Your task to perform on an android device: Clear all items from cart on amazon. Image 0: 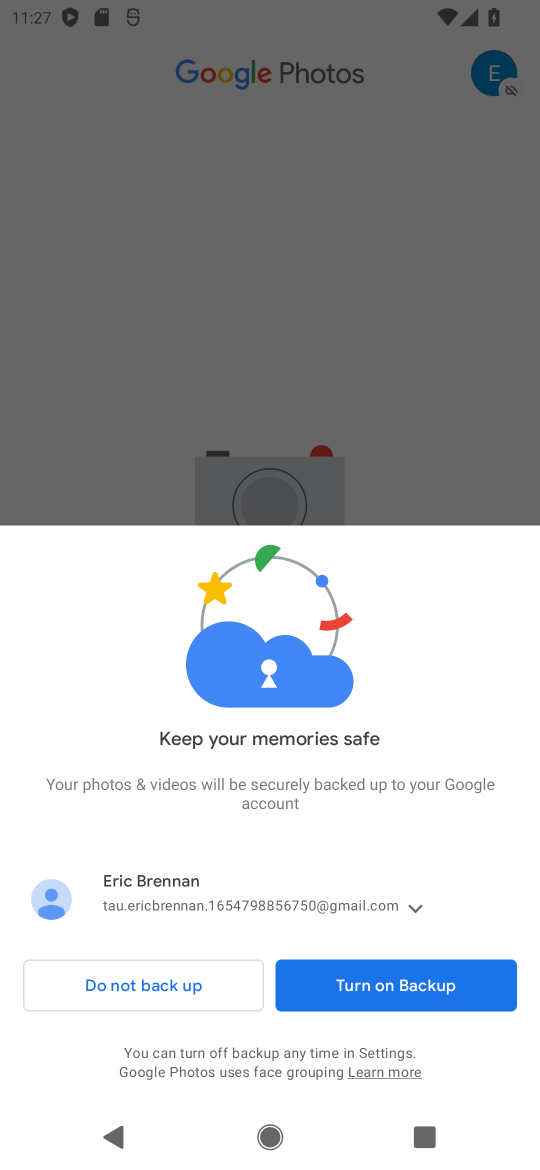
Step 0: press home button
Your task to perform on an android device: Clear all items from cart on amazon. Image 1: 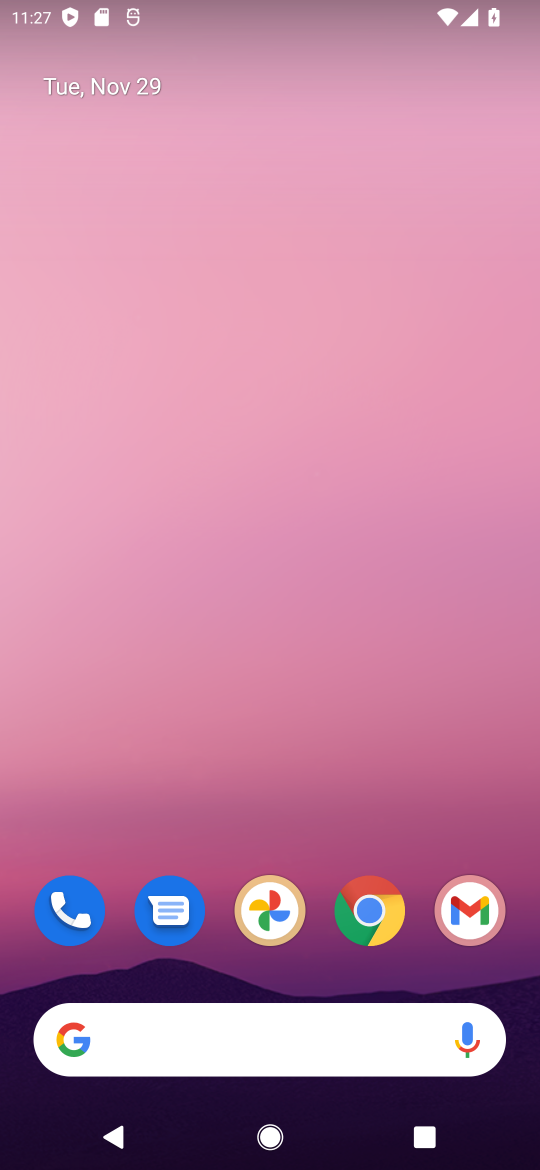
Step 1: click (374, 907)
Your task to perform on an android device: Clear all items from cart on amazon. Image 2: 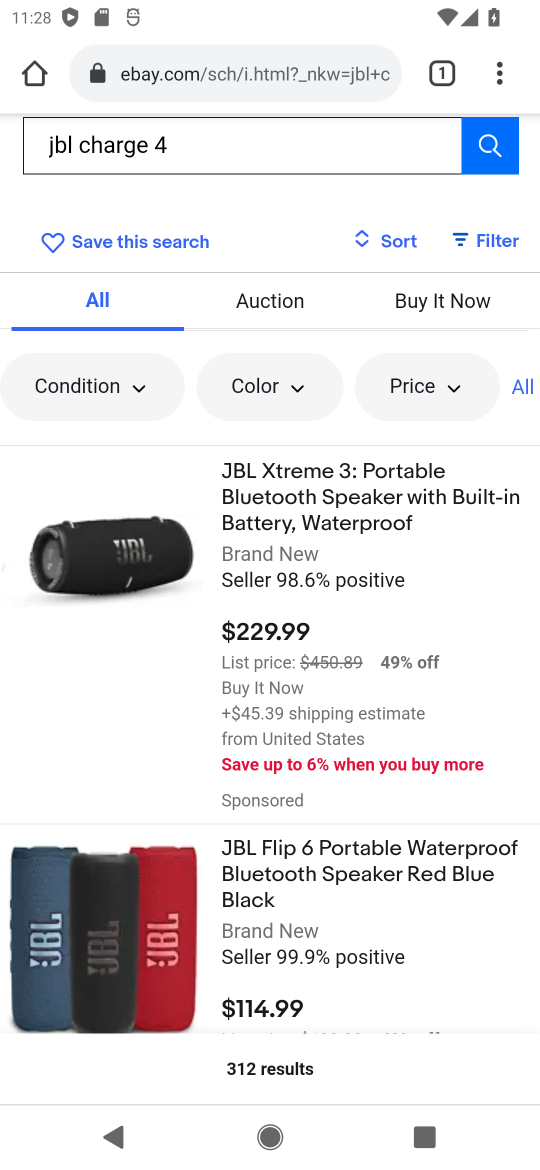
Step 2: click (212, 77)
Your task to perform on an android device: Clear all items from cart on amazon. Image 3: 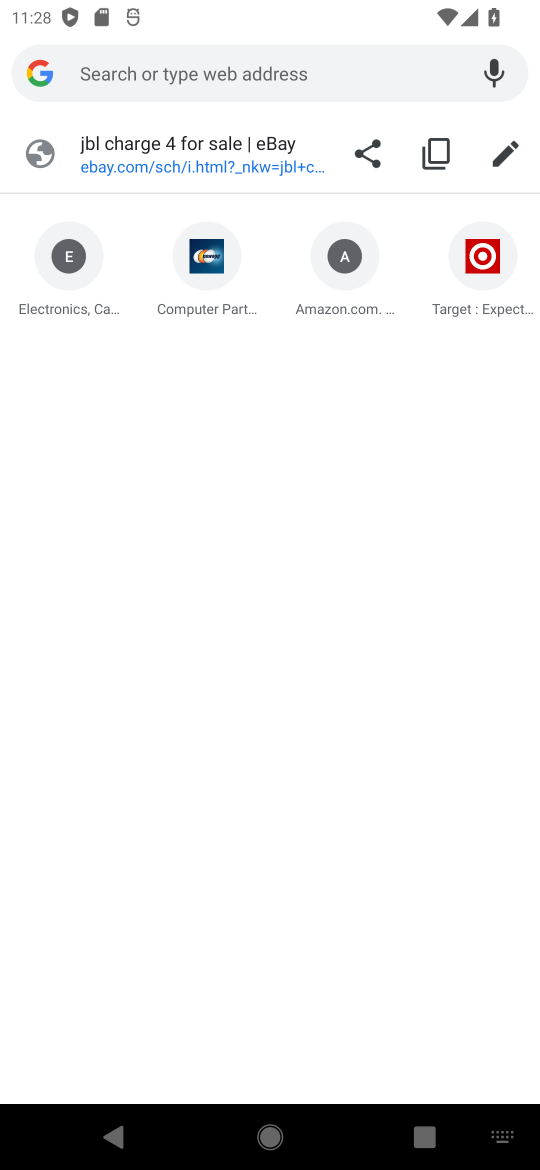
Step 3: click (343, 274)
Your task to perform on an android device: Clear all items from cart on amazon. Image 4: 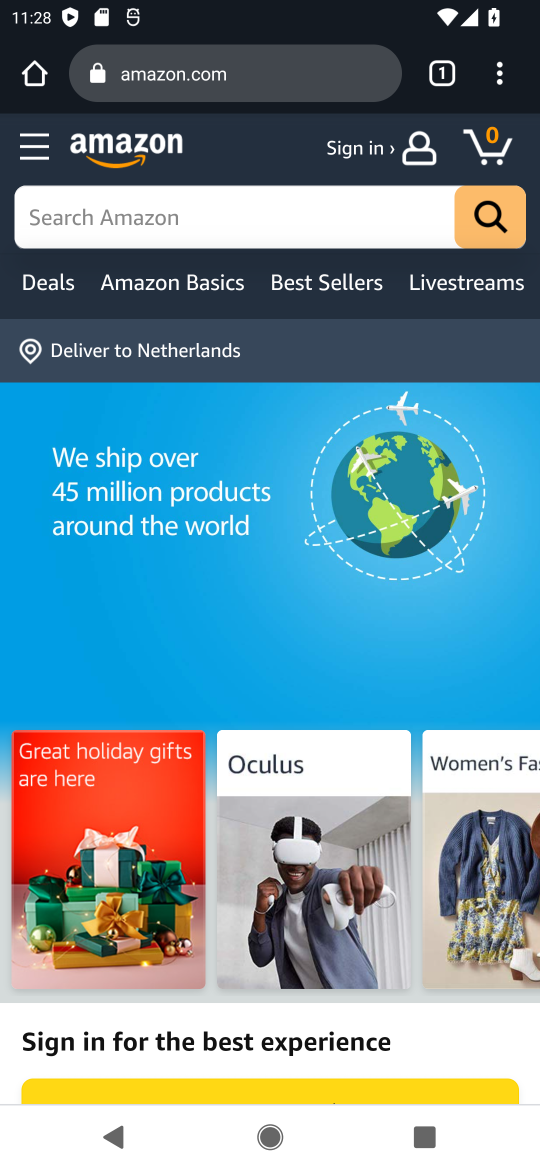
Step 4: click (493, 142)
Your task to perform on an android device: Clear all items from cart on amazon. Image 5: 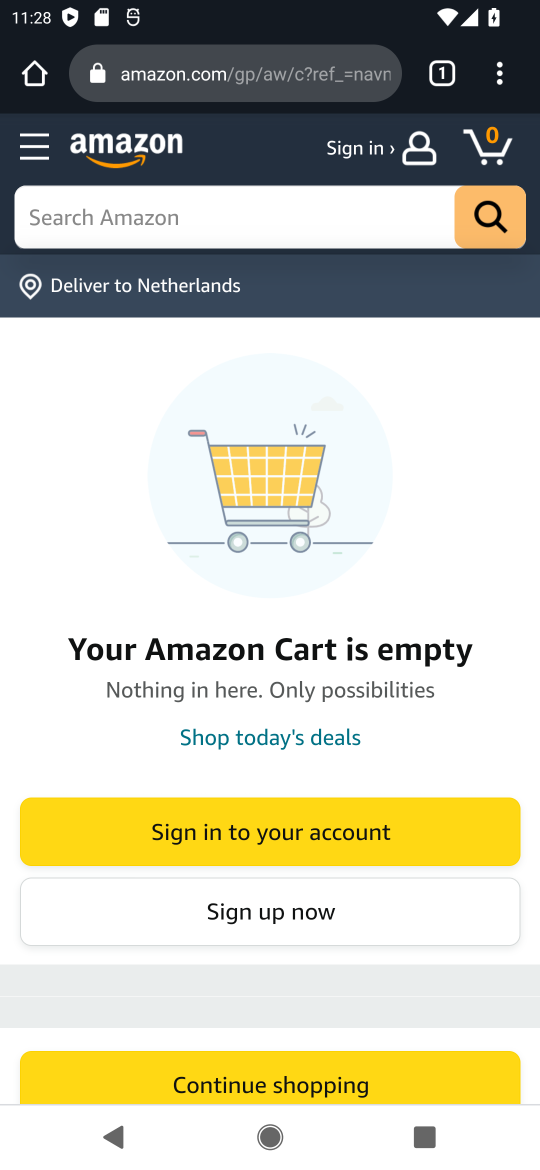
Step 5: task complete